Your task to perform on an android device: Open settings Image 0: 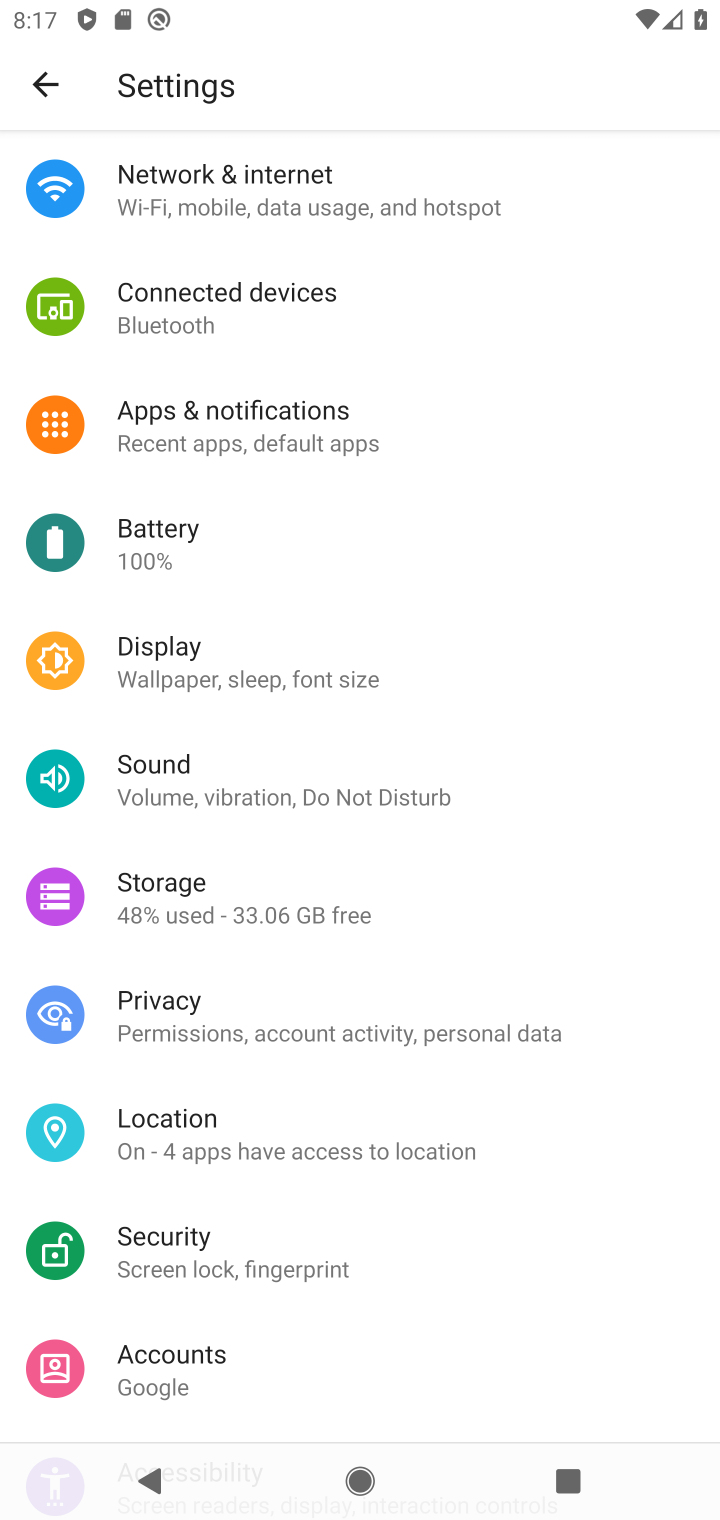
Step 0: task complete